Your task to perform on an android device: move an email to a new category in the gmail app Image 0: 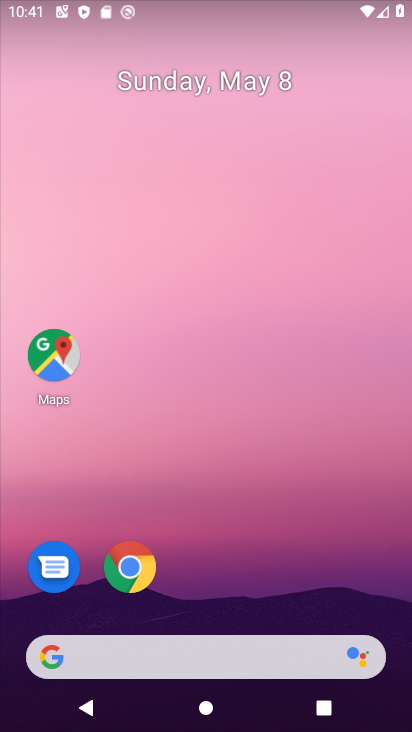
Step 0: drag from (210, 608) to (249, 79)
Your task to perform on an android device: move an email to a new category in the gmail app Image 1: 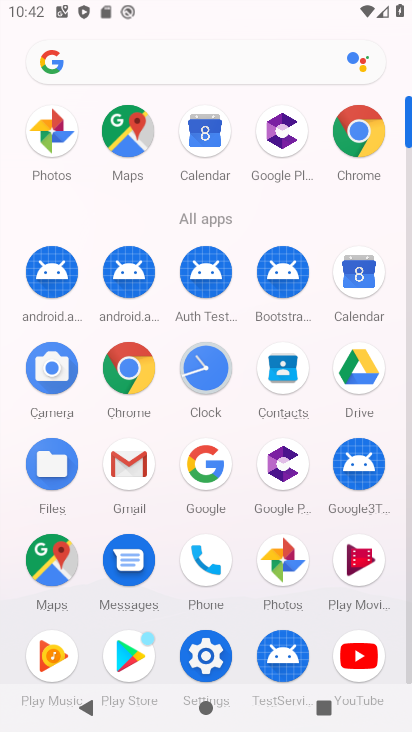
Step 1: click (124, 456)
Your task to perform on an android device: move an email to a new category in the gmail app Image 2: 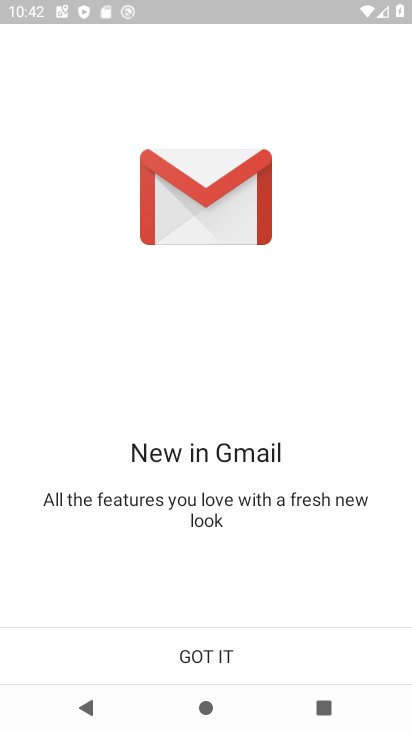
Step 2: click (212, 661)
Your task to perform on an android device: move an email to a new category in the gmail app Image 3: 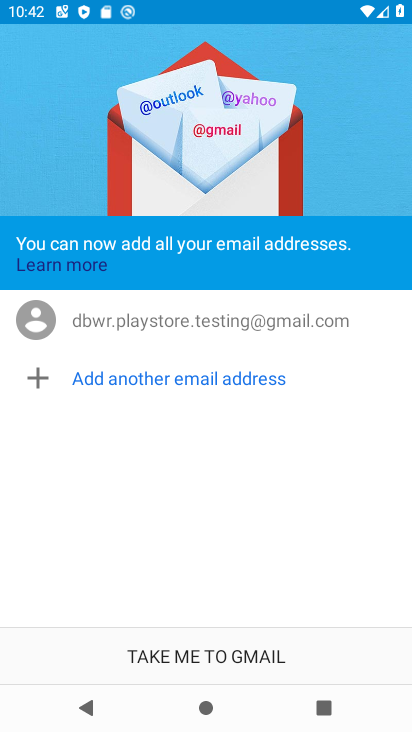
Step 3: click (197, 661)
Your task to perform on an android device: move an email to a new category in the gmail app Image 4: 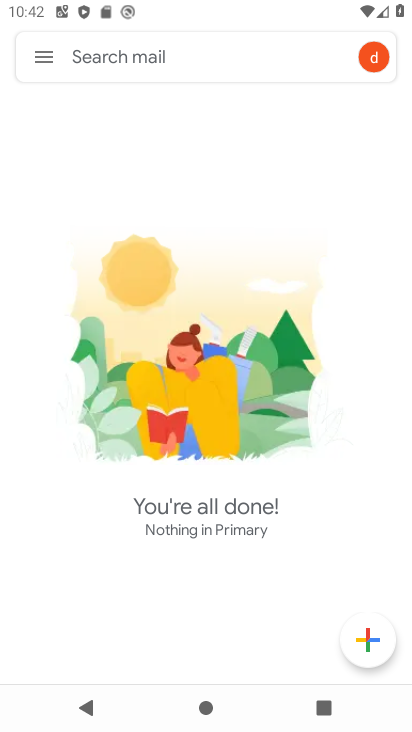
Step 4: task complete